Your task to perform on an android device: Open the calendar app, open the side menu, and click the "Day" option Image 0: 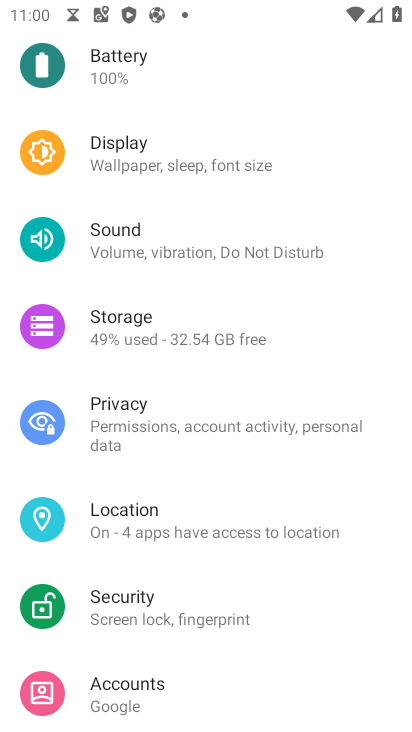
Step 0: press home button
Your task to perform on an android device: Open the calendar app, open the side menu, and click the "Day" option Image 1: 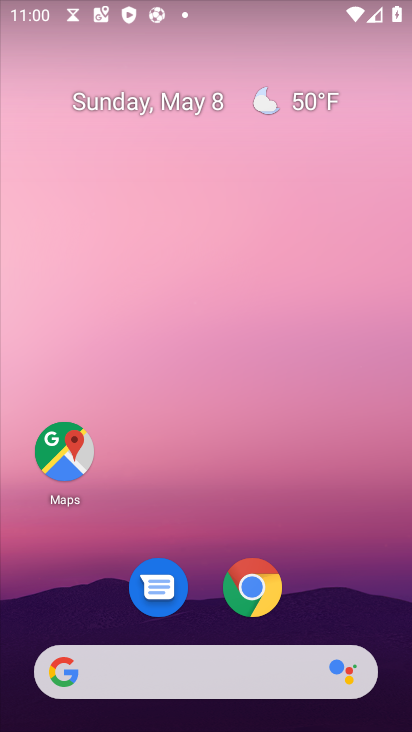
Step 1: drag from (197, 464) to (175, 104)
Your task to perform on an android device: Open the calendar app, open the side menu, and click the "Day" option Image 2: 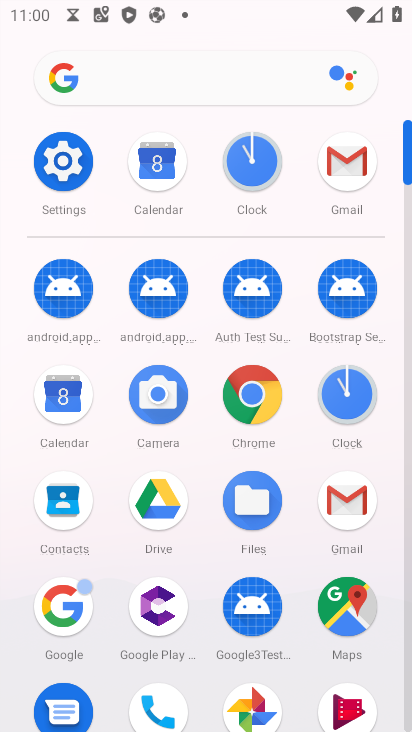
Step 2: click (156, 163)
Your task to perform on an android device: Open the calendar app, open the side menu, and click the "Day" option Image 3: 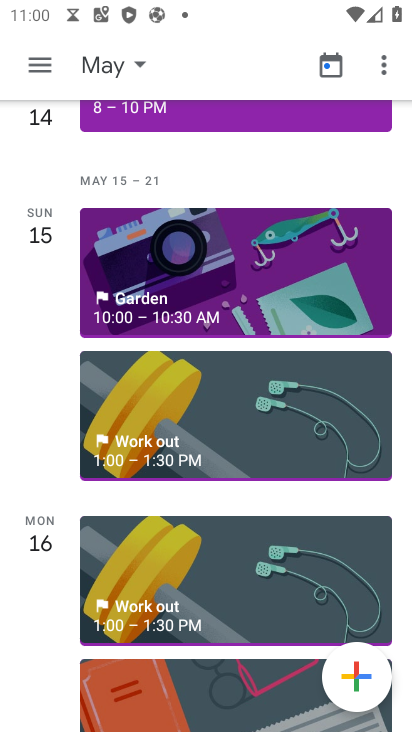
Step 3: click (41, 69)
Your task to perform on an android device: Open the calendar app, open the side menu, and click the "Day" option Image 4: 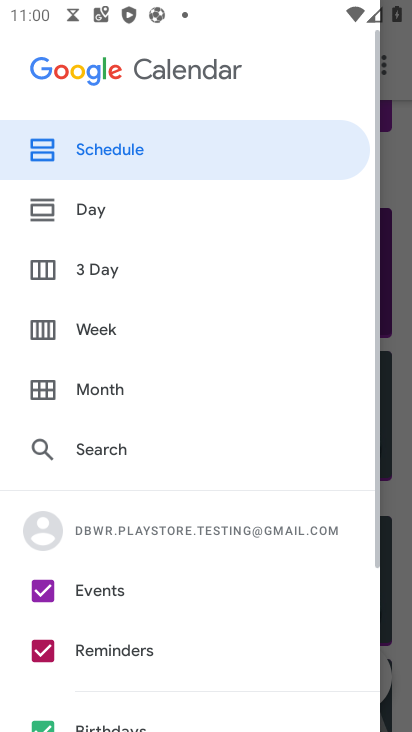
Step 4: click (80, 213)
Your task to perform on an android device: Open the calendar app, open the side menu, and click the "Day" option Image 5: 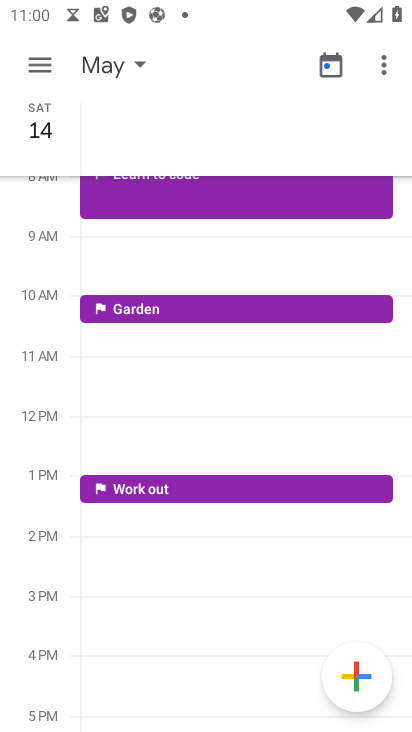
Step 5: task complete